Your task to perform on an android device: Open the Play Movies app and select the watchlist tab. Image 0: 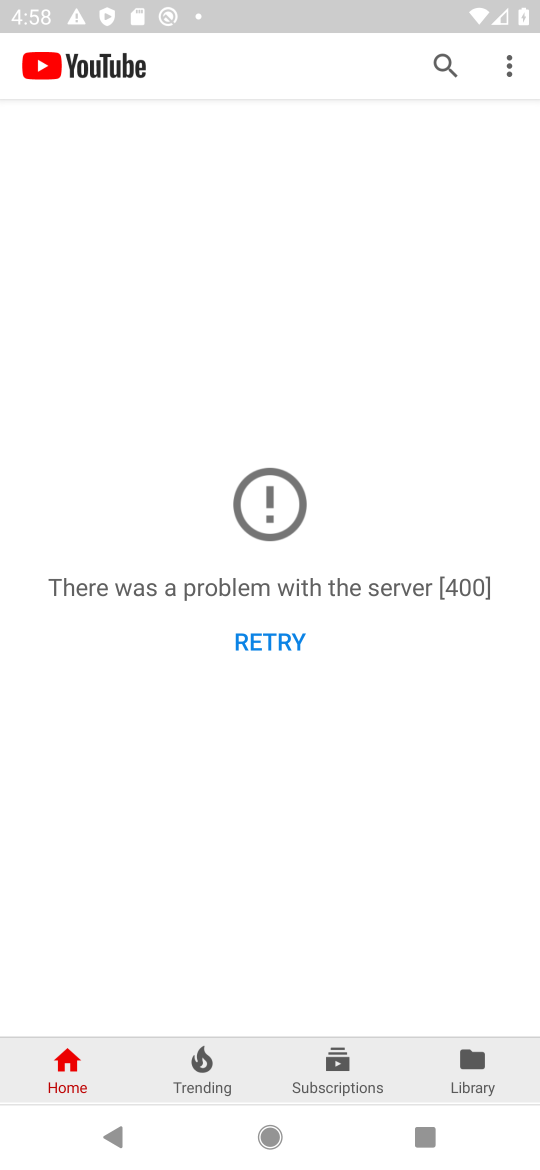
Step 0: press home button
Your task to perform on an android device: Open the Play Movies app and select the watchlist tab. Image 1: 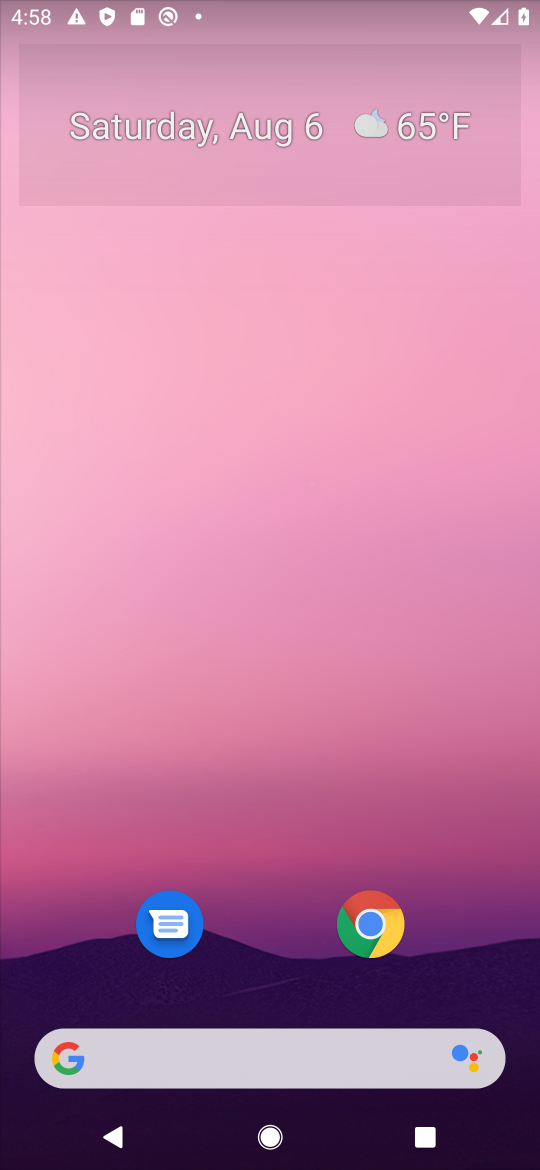
Step 1: drag from (186, 1017) to (321, 151)
Your task to perform on an android device: Open the Play Movies app and select the watchlist tab. Image 2: 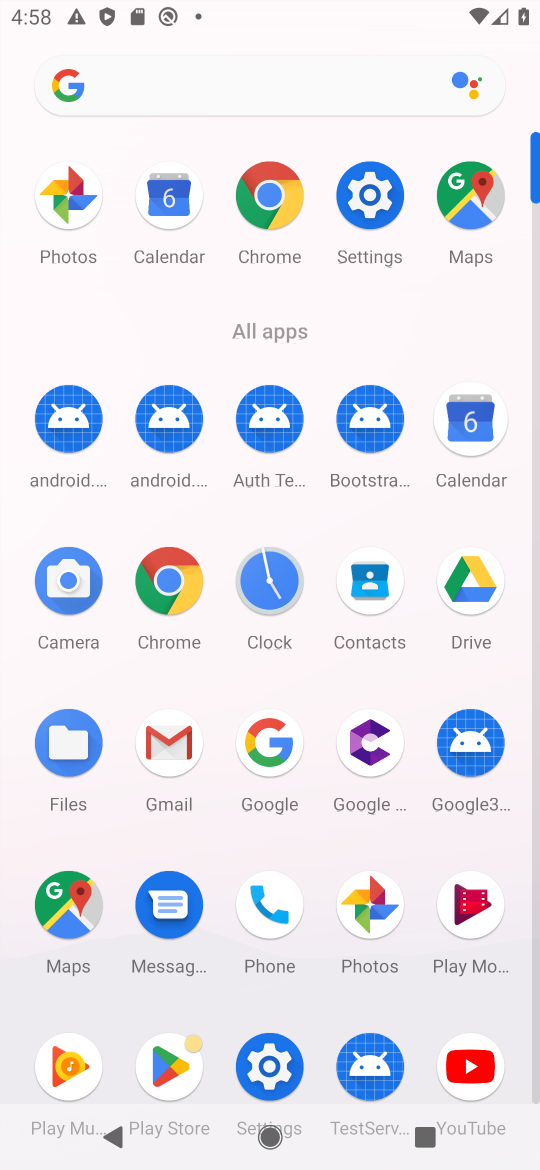
Step 2: click (450, 913)
Your task to perform on an android device: Open the Play Movies app and select the watchlist tab. Image 3: 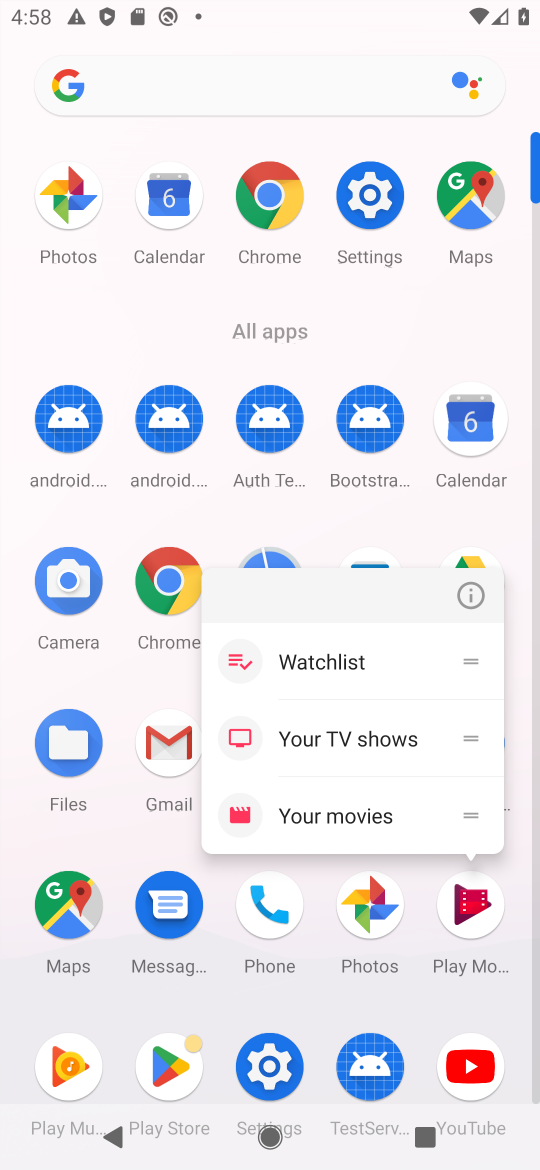
Step 3: click (450, 913)
Your task to perform on an android device: Open the Play Movies app and select the watchlist tab. Image 4: 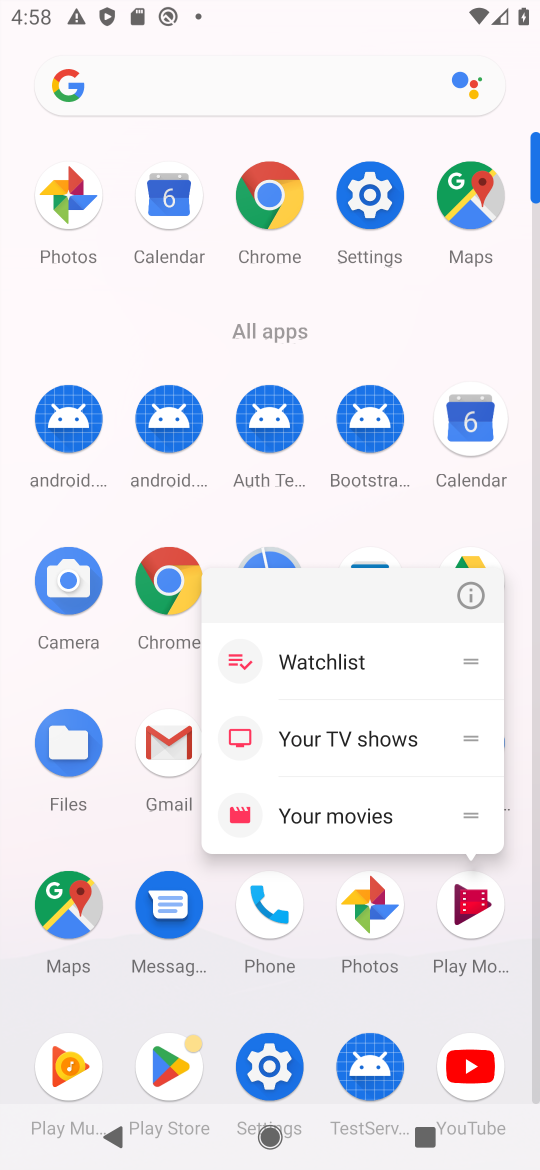
Step 4: click (450, 913)
Your task to perform on an android device: Open the Play Movies app and select the watchlist tab. Image 5: 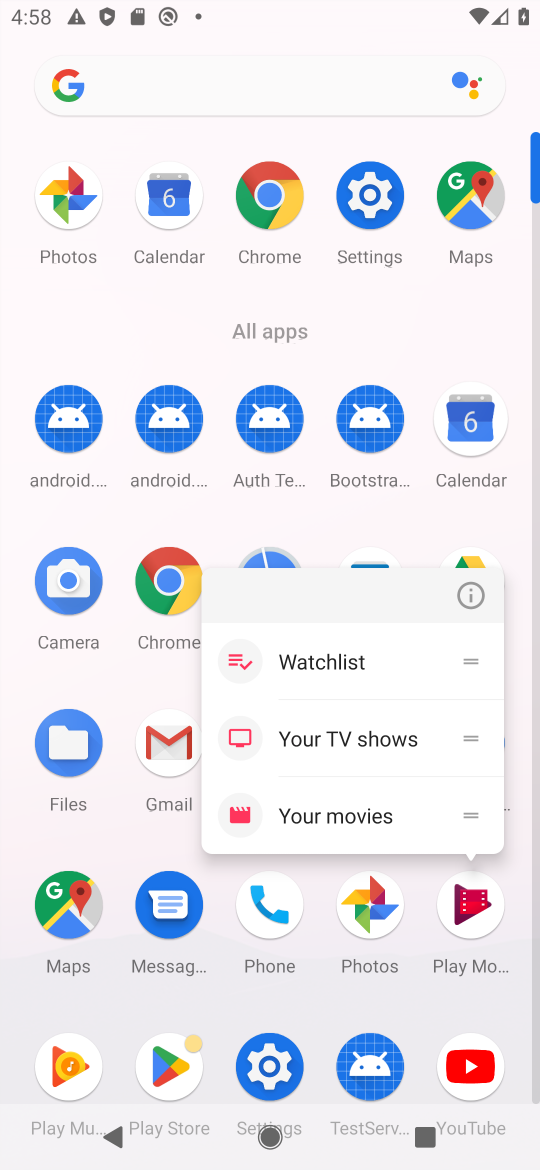
Step 5: click (474, 913)
Your task to perform on an android device: Open the Play Movies app and select the watchlist tab. Image 6: 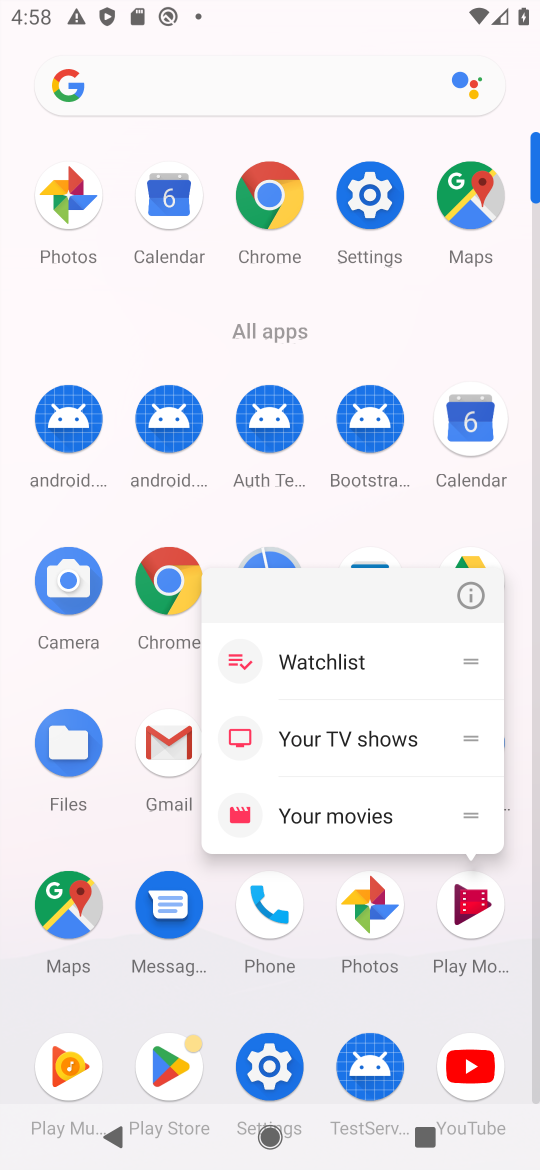
Step 6: click (474, 913)
Your task to perform on an android device: Open the Play Movies app and select the watchlist tab. Image 7: 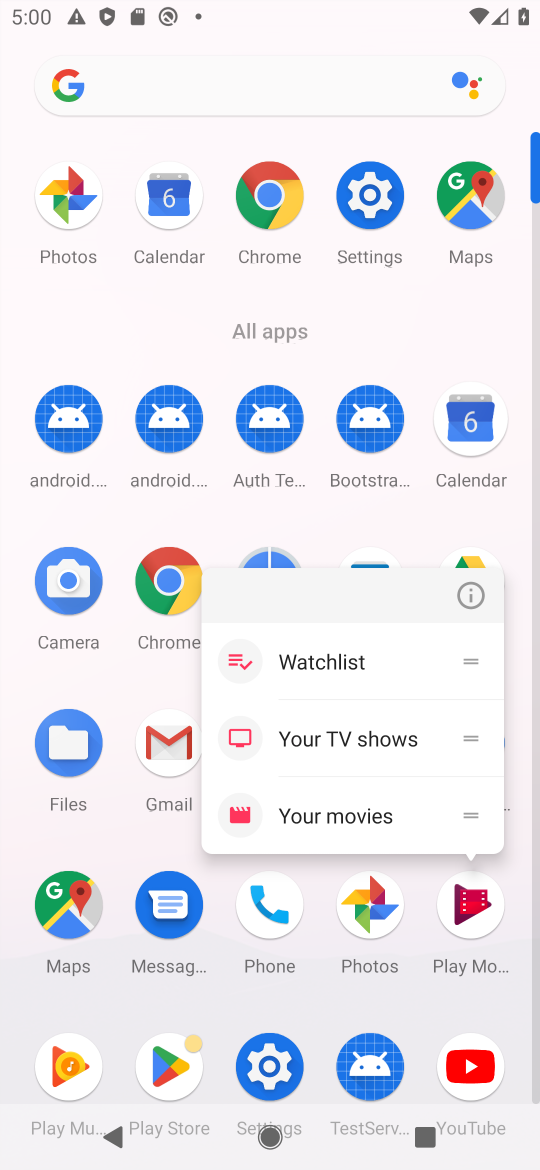
Step 7: click (487, 923)
Your task to perform on an android device: Open the Play Movies app and select the watchlist tab. Image 8: 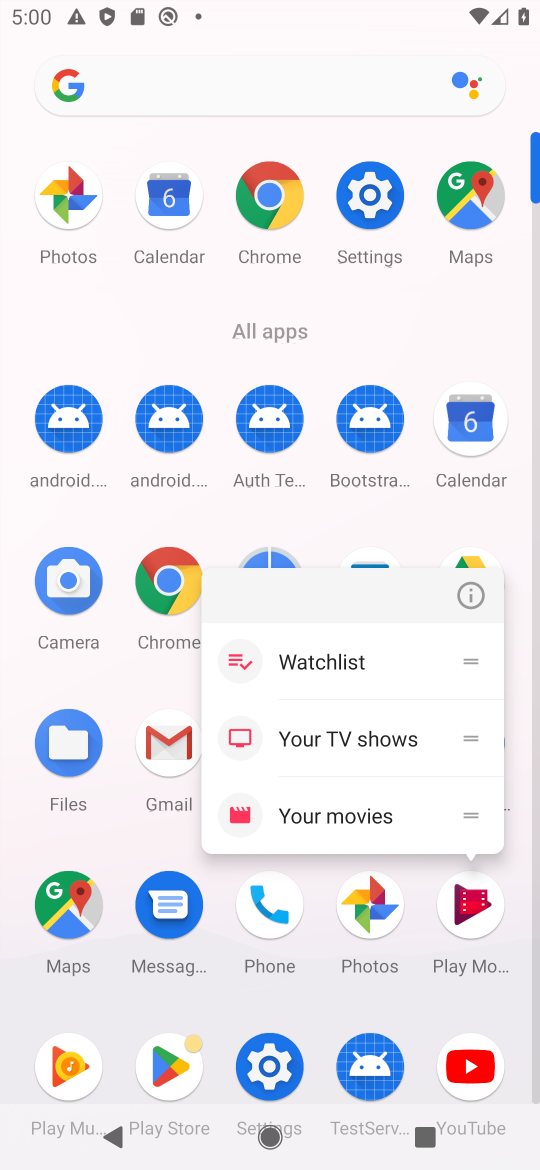
Step 8: click (367, 658)
Your task to perform on an android device: Open the Play Movies app and select the watchlist tab. Image 9: 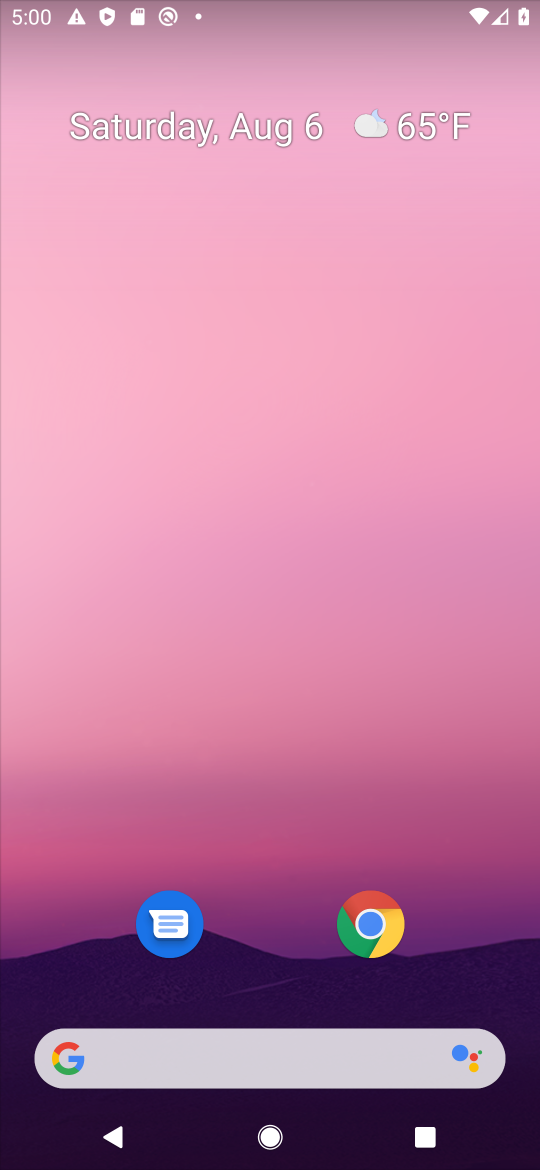
Step 9: drag from (406, 1084) to (425, 286)
Your task to perform on an android device: Open the Play Movies app and select the watchlist tab. Image 10: 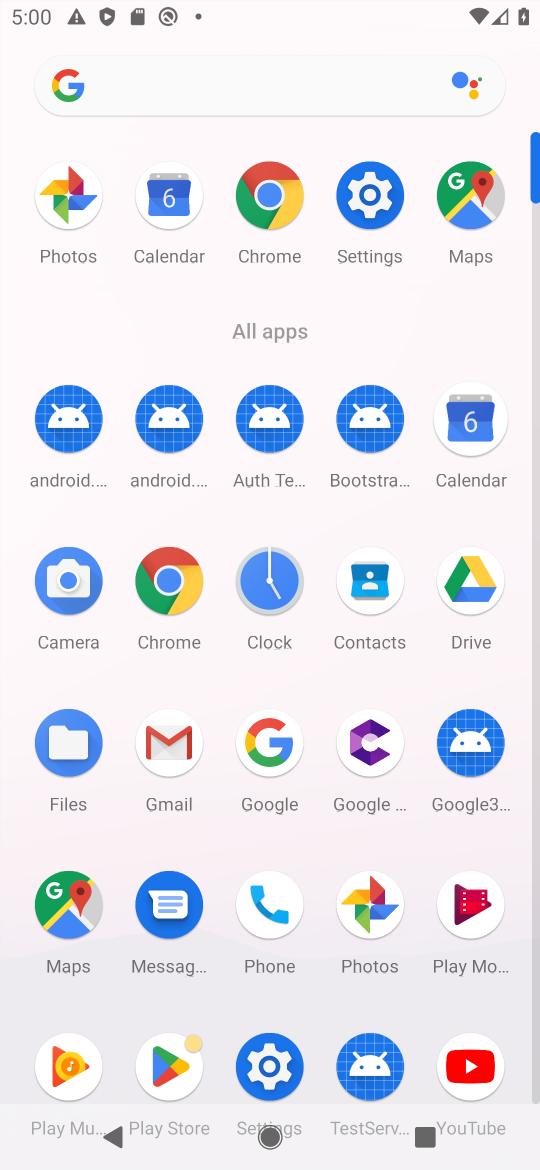
Step 10: click (461, 905)
Your task to perform on an android device: Open the Play Movies app and select the watchlist tab. Image 11: 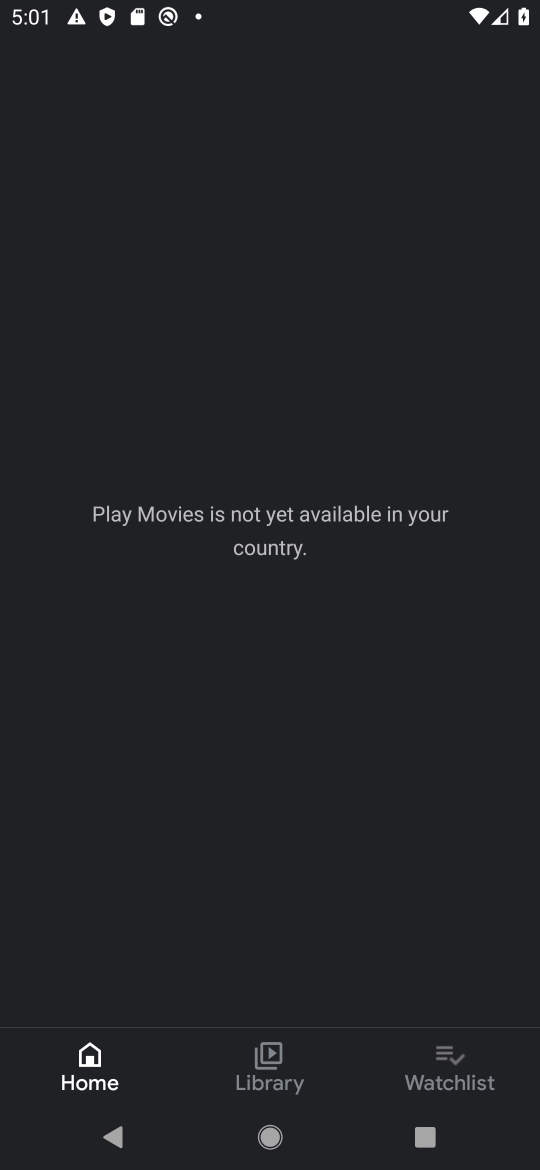
Step 11: click (465, 1044)
Your task to perform on an android device: Open the Play Movies app and select the watchlist tab. Image 12: 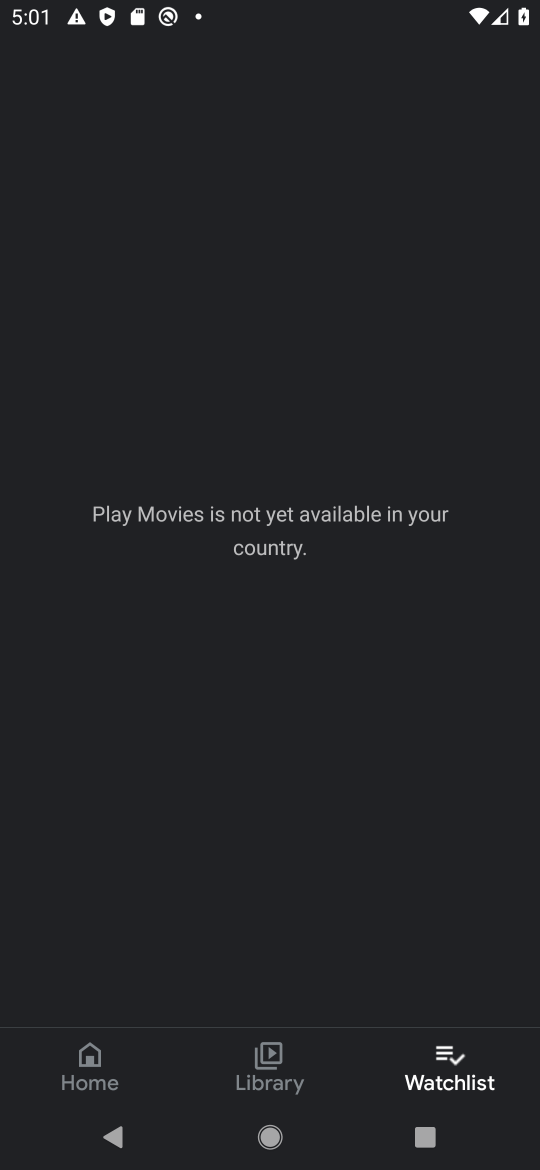
Step 12: task complete